Your task to perform on an android device: check android version Image 0: 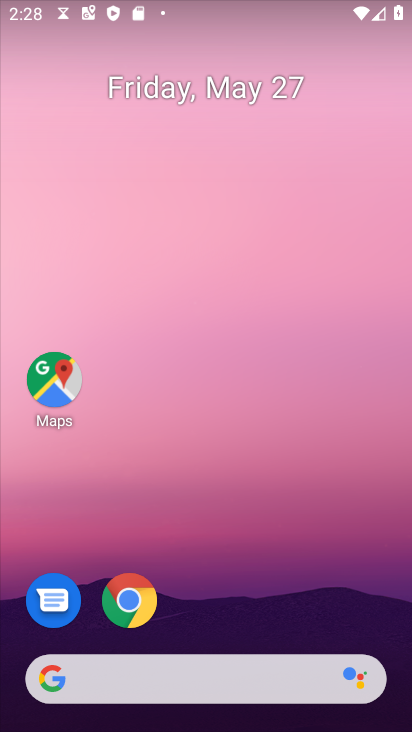
Step 0: drag from (232, 536) to (220, 72)
Your task to perform on an android device: check android version Image 1: 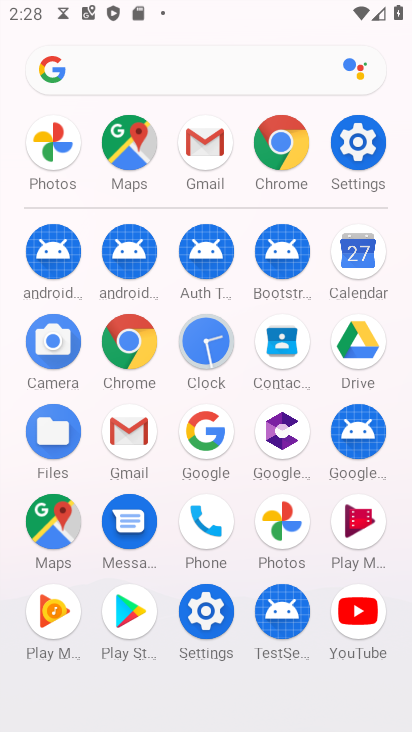
Step 1: drag from (16, 540) to (13, 219)
Your task to perform on an android device: check android version Image 2: 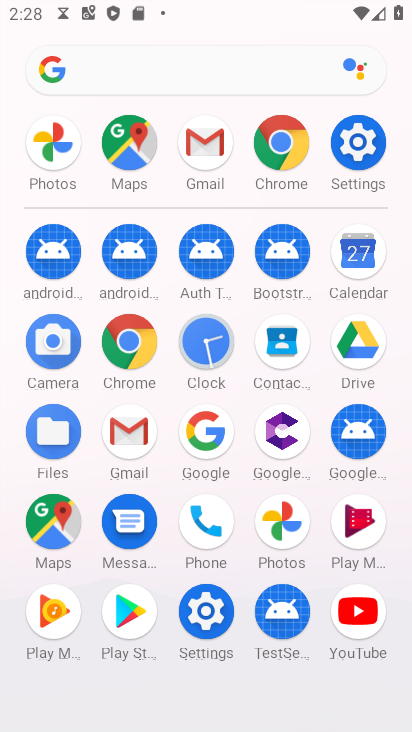
Step 2: click (201, 608)
Your task to perform on an android device: check android version Image 3: 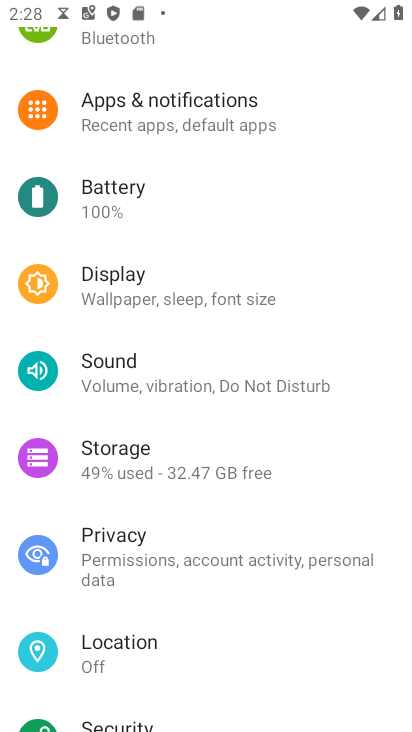
Step 3: drag from (262, 582) to (295, 109)
Your task to perform on an android device: check android version Image 4: 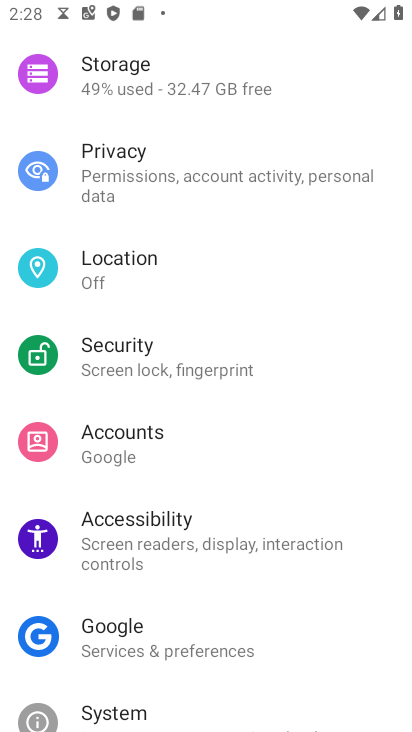
Step 4: drag from (243, 599) to (317, 79)
Your task to perform on an android device: check android version Image 5: 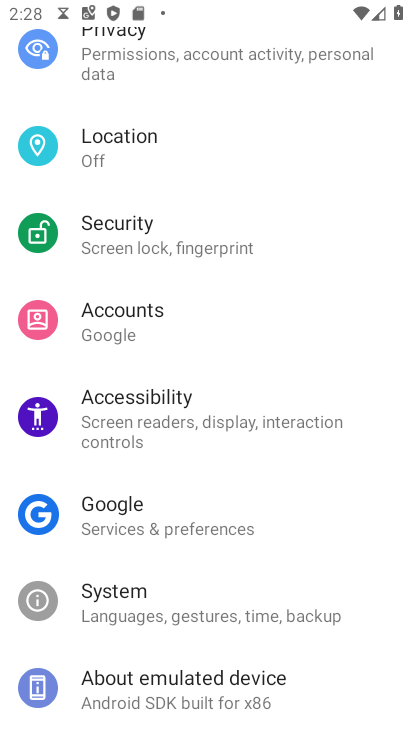
Step 5: click (173, 692)
Your task to perform on an android device: check android version Image 6: 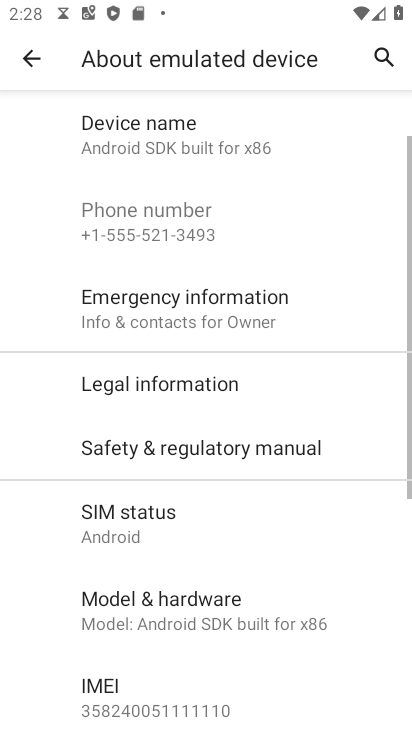
Step 6: task complete